Your task to perform on an android device: Open calendar and show me the first week of next month Image 0: 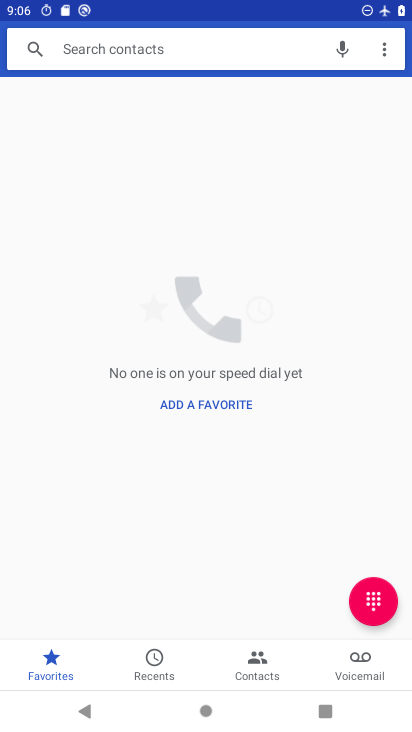
Step 0: press home button
Your task to perform on an android device: Open calendar and show me the first week of next month Image 1: 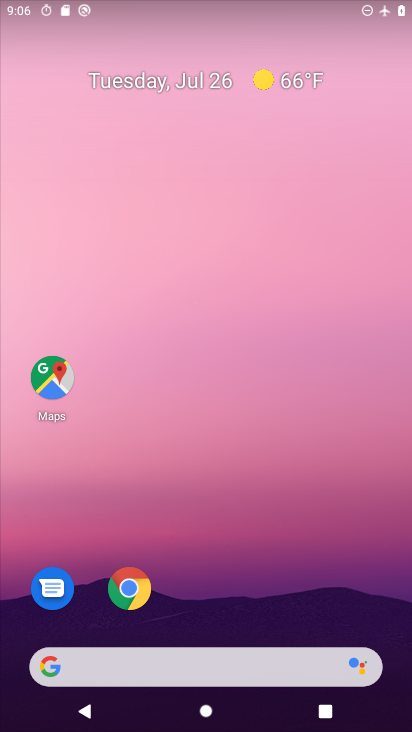
Step 1: drag from (234, 699) to (234, 133)
Your task to perform on an android device: Open calendar and show me the first week of next month Image 2: 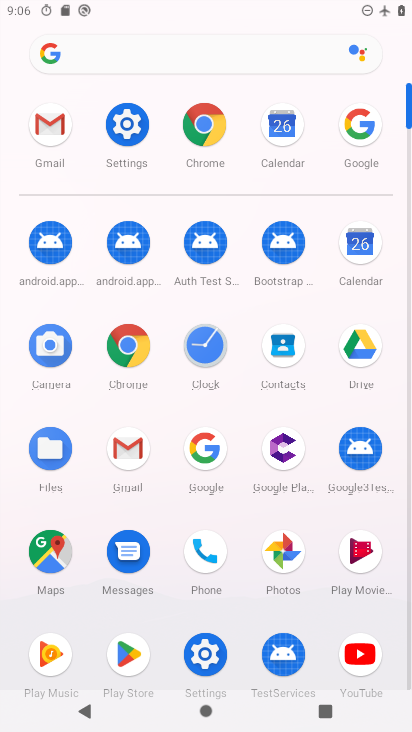
Step 2: click (360, 249)
Your task to perform on an android device: Open calendar and show me the first week of next month Image 3: 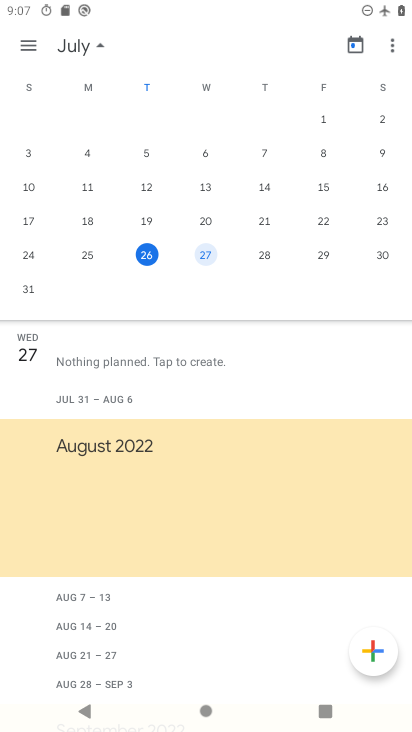
Step 3: drag from (328, 193) to (58, 193)
Your task to perform on an android device: Open calendar and show me the first week of next month Image 4: 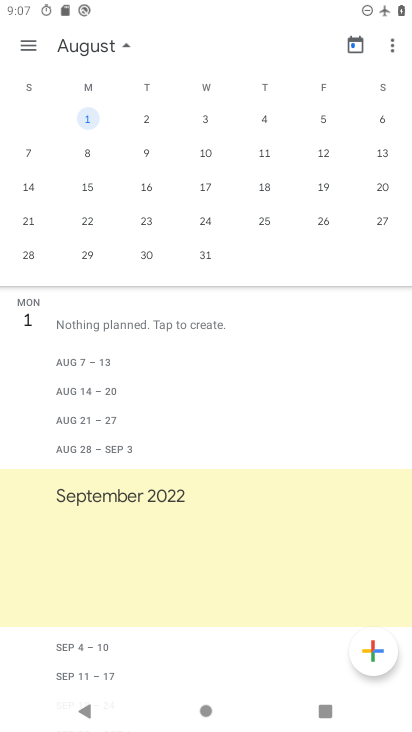
Step 4: click (31, 43)
Your task to perform on an android device: Open calendar and show me the first week of next month Image 5: 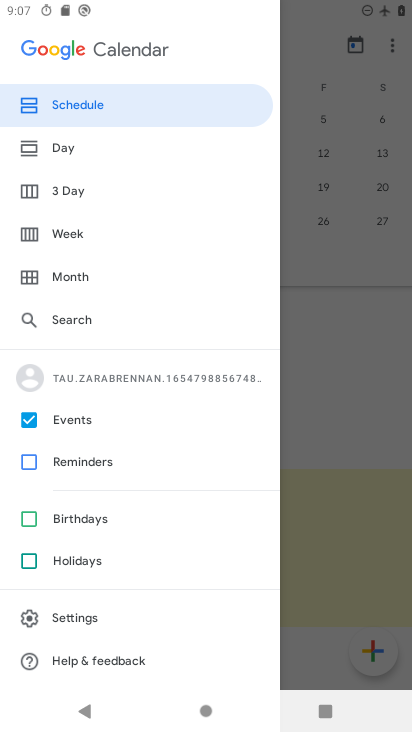
Step 5: click (69, 227)
Your task to perform on an android device: Open calendar and show me the first week of next month Image 6: 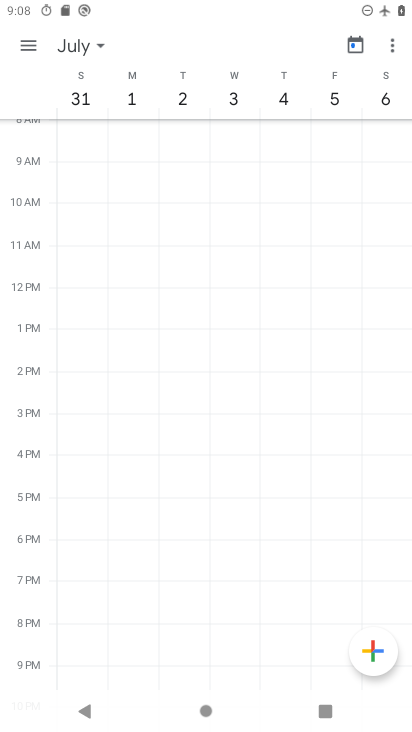
Step 6: click (101, 47)
Your task to perform on an android device: Open calendar and show me the first week of next month Image 7: 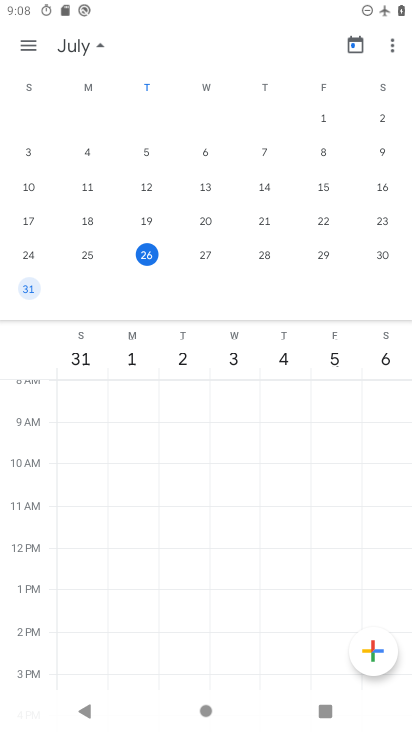
Step 7: drag from (321, 225) to (17, 225)
Your task to perform on an android device: Open calendar and show me the first week of next month Image 8: 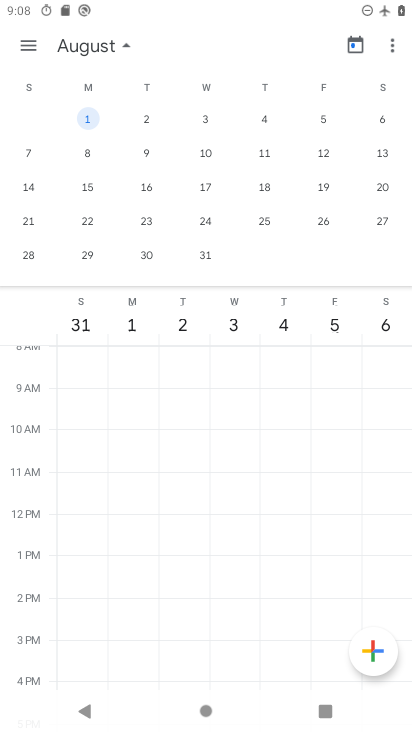
Step 8: click (30, 43)
Your task to perform on an android device: Open calendar and show me the first week of next month Image 9: 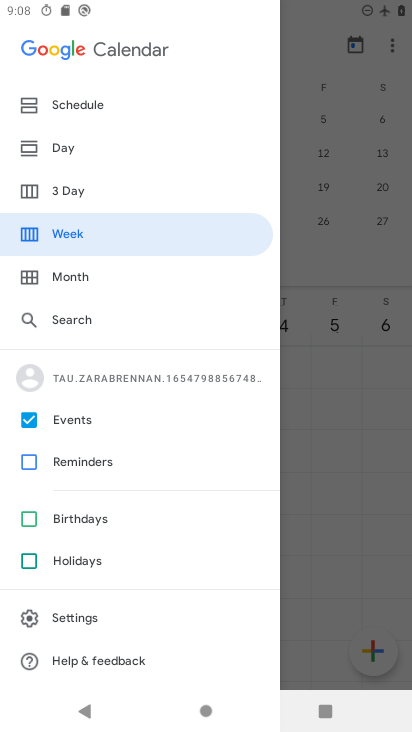
Step 9: click (84, 227)
Your task to perform on an android device: Open calendar and show me the first week of next month Image 10: 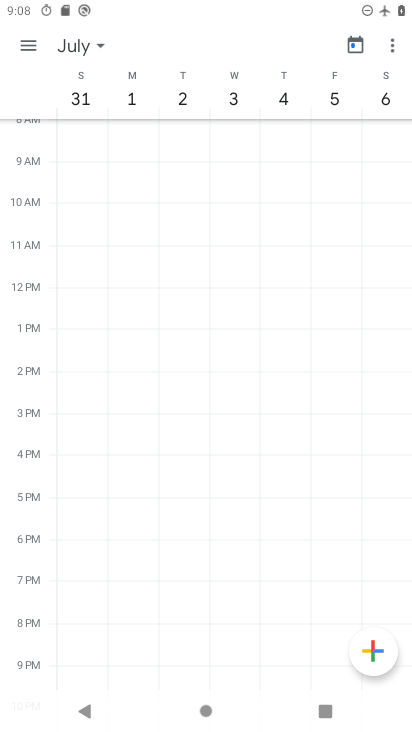
Step 10: task complete